Your task to perform on an android device: open app "Google Play Music" Image 0: 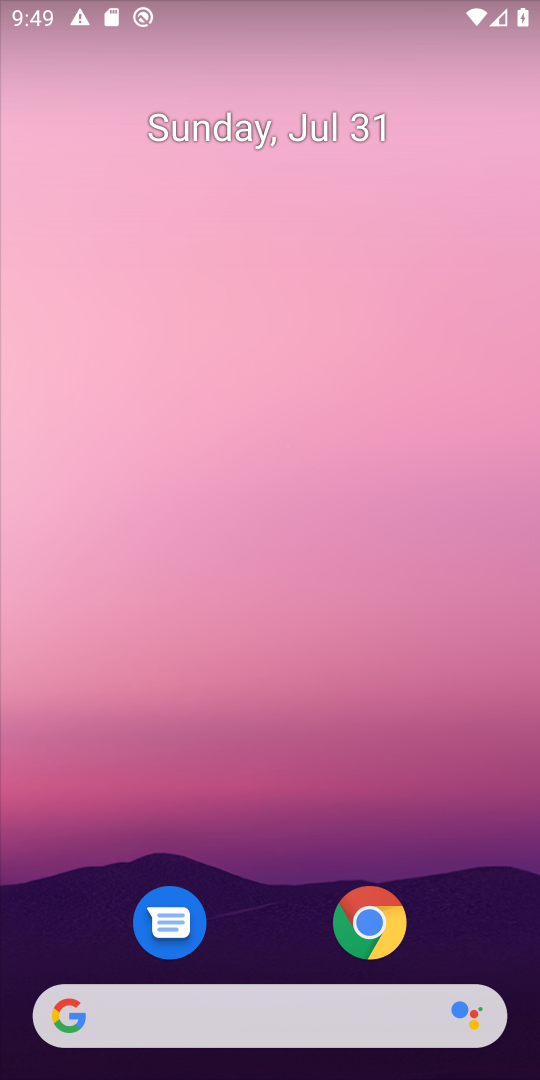
Step 0: drag from (271, 1054) to (284, 137)
Your task to perform on an android device: open app "Google Play Music" Image 1: 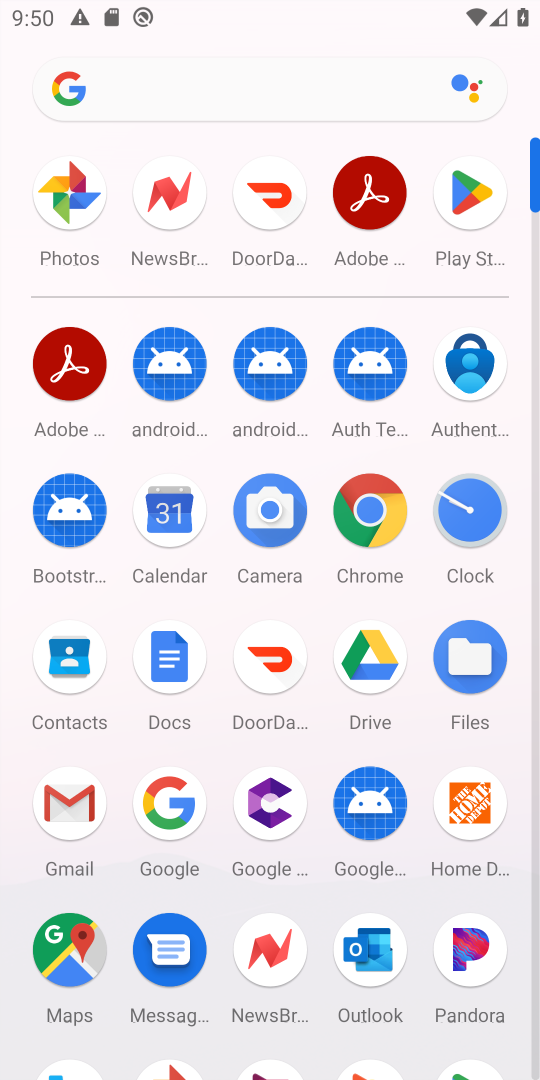
Step 1: click (446, 202)
Your task to perform on an android device: open app "Google Play Music" Image 2: 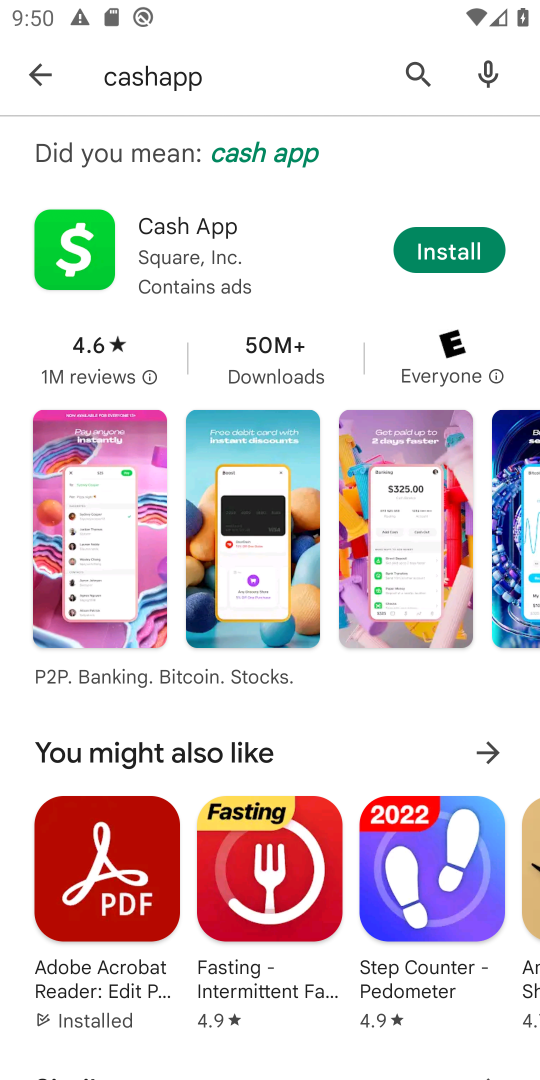
Step 2: click (419, 67)
Your task to perform on an android device: open app "Google Play Music" Image 3: 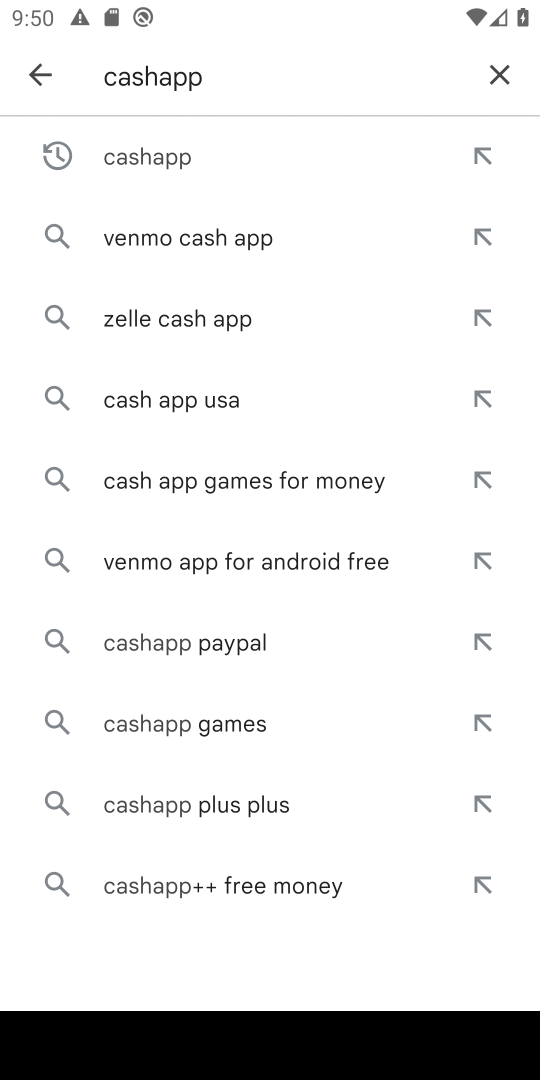
Step 3: click (491, 66)
Your task to perform on an android device: open app "Google Play Music" Image 4: 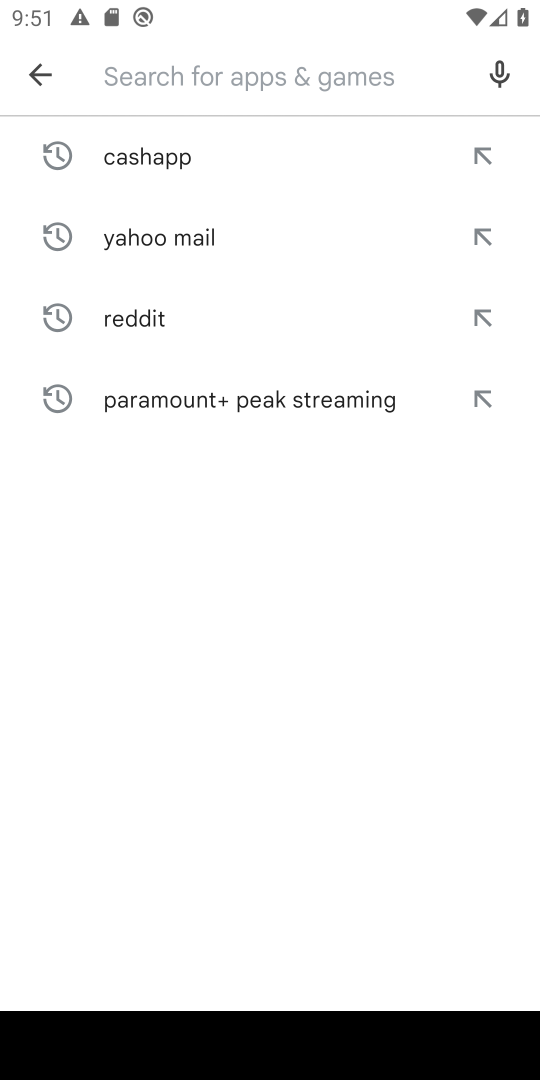
Step 4: type "Google Play Music"
Your task to perform on an android device: open app "Google Play Music" Image 5: 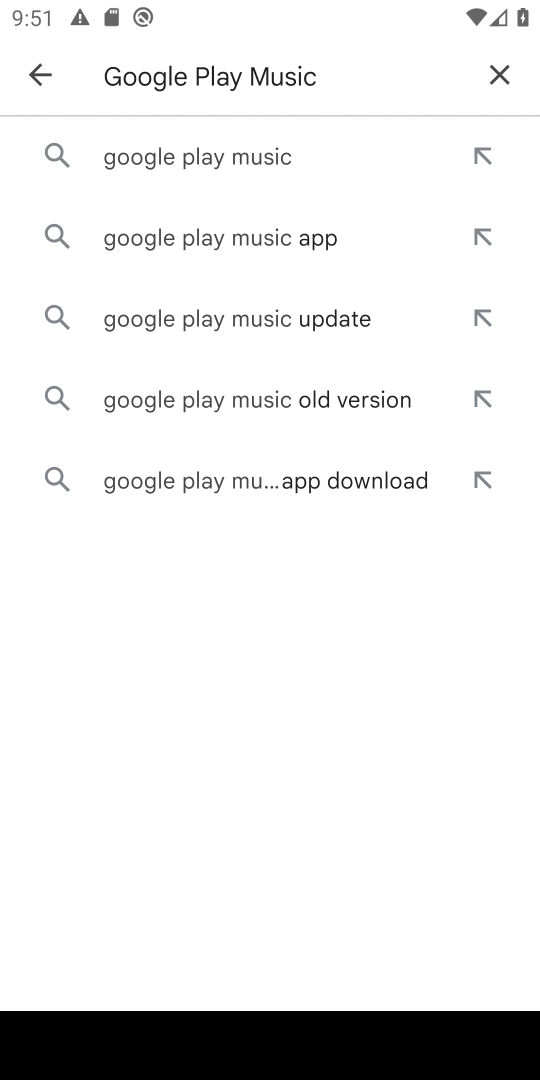
Step 5: click (248, 157)
Your task to perform on an android device: open app "Google Play Music" Image 6: 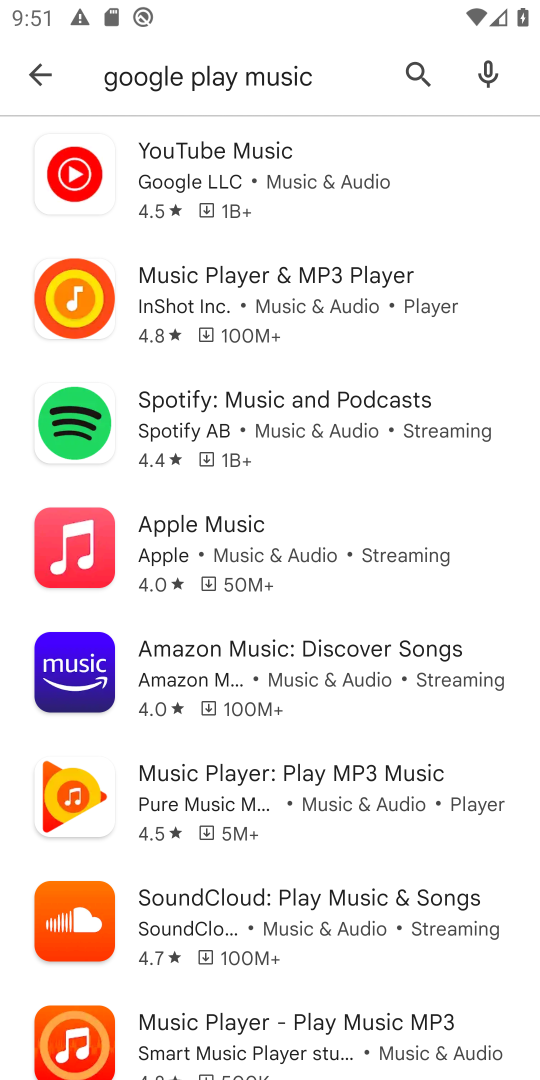
Step 6: click (212, 157)
Your task to perform on an android device: open app "Google Play Music" Image 7: 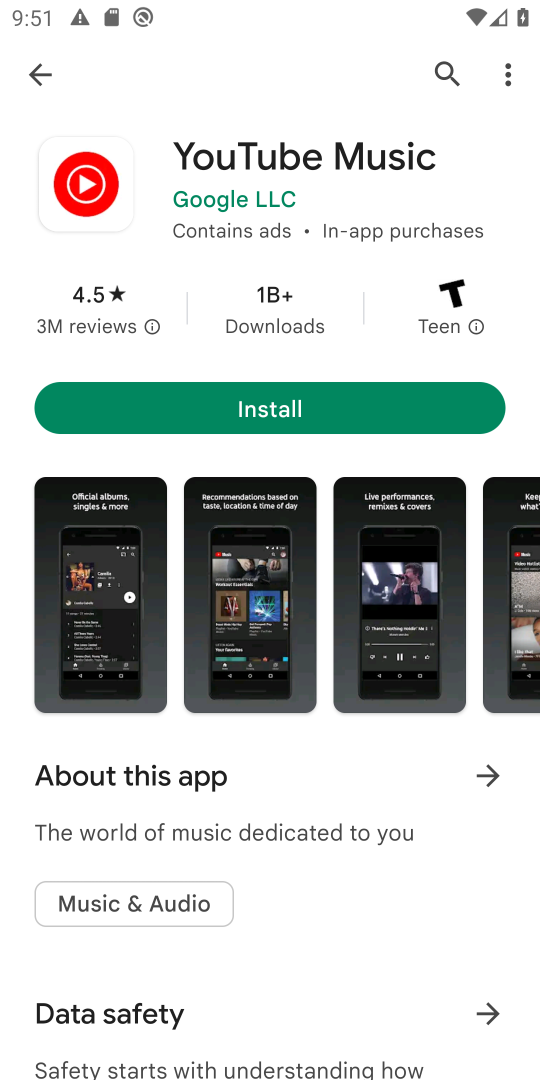
Step 7: task complete